Your task to perform on an android device: open wifi settings Image 0: 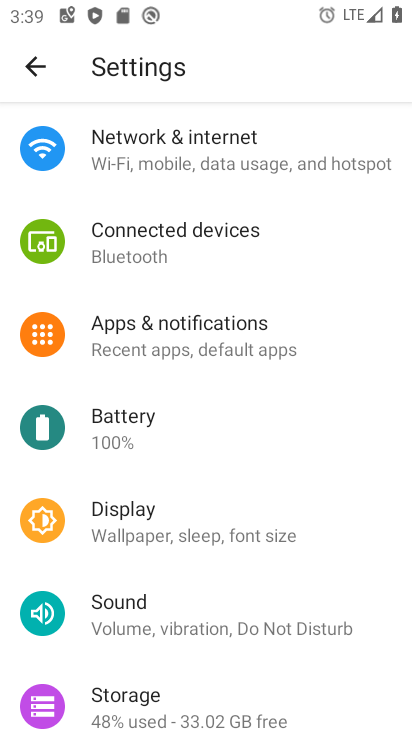
Step 0: click (297, 145)
Your task to perform on an android device: open wifi settings Image 1: 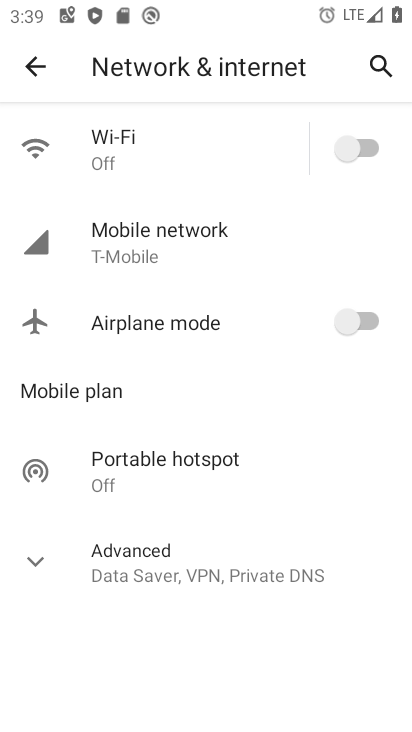
Step 1: click (131, 162)
Your task to perform on an android device: open wifi settings Image 2: 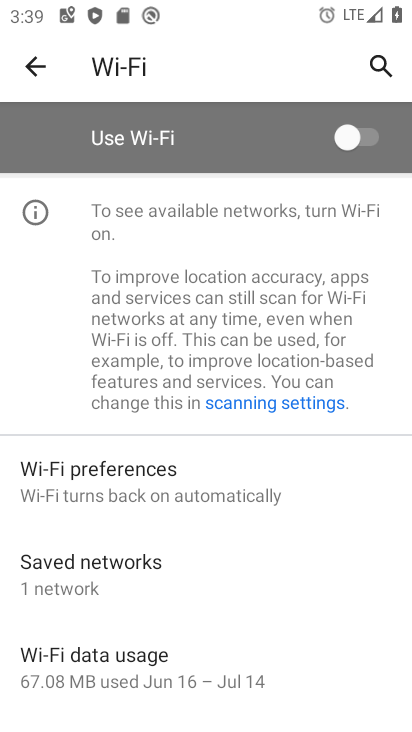
Step 2: task complete